Your task to perform on an android device: turn notification dots on Image 0: 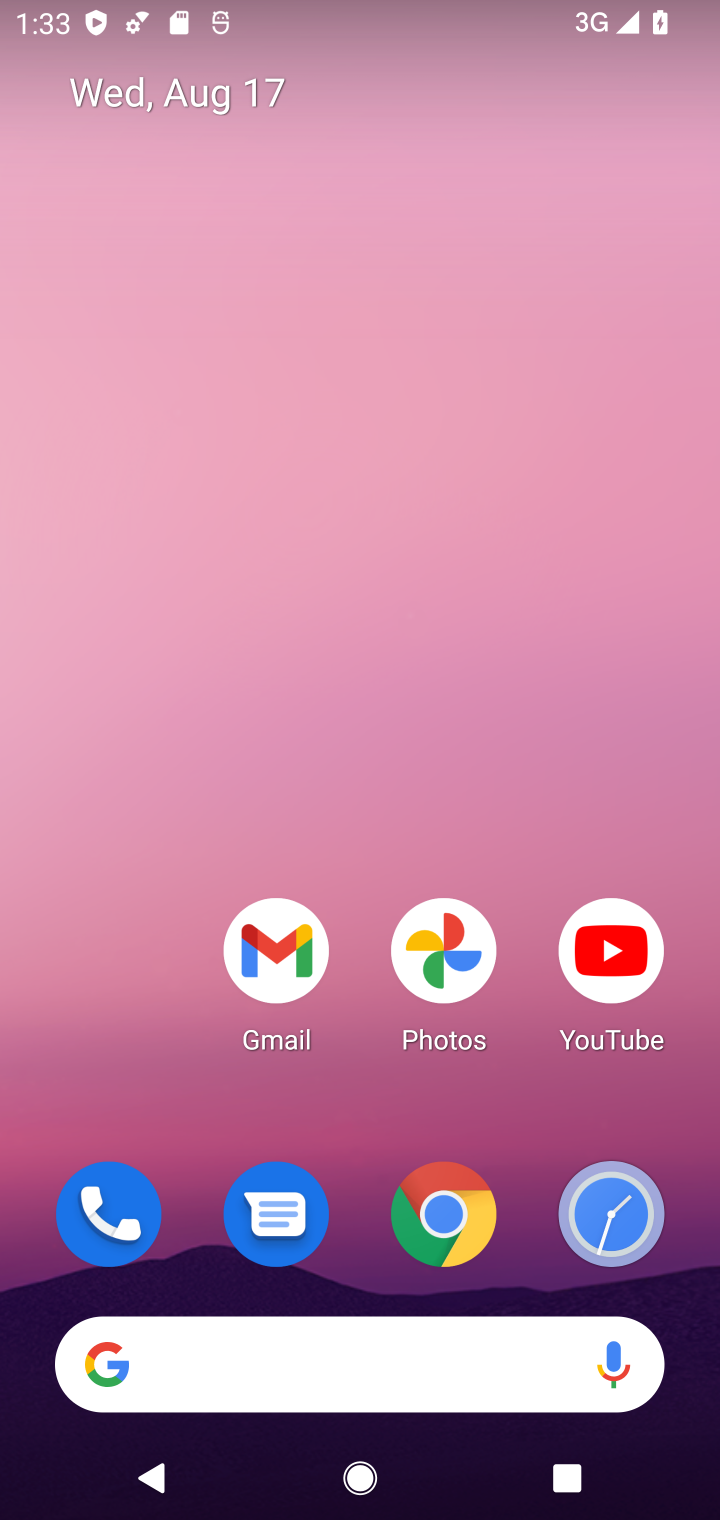
Step 0: press home button
Your task to perform on an android device: turn notification dots on Image 1: 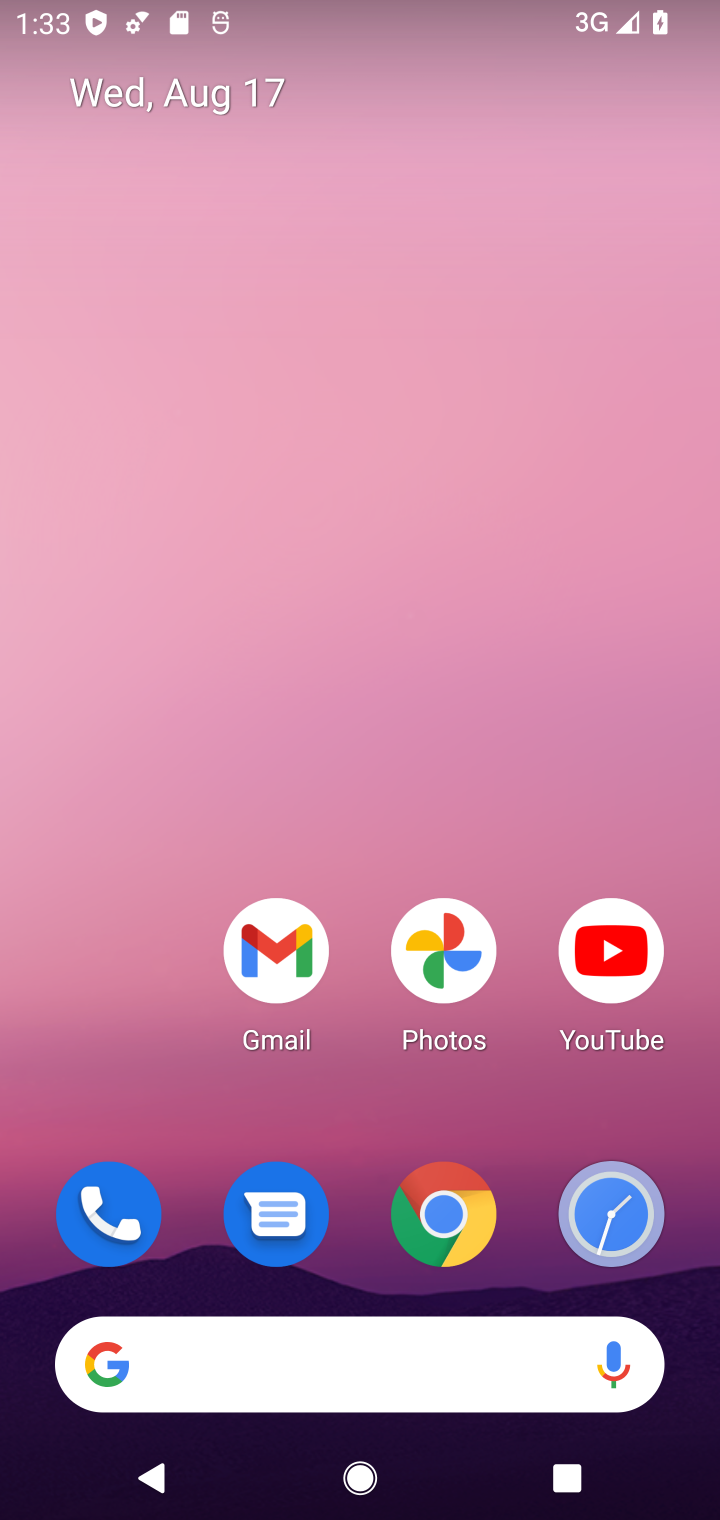
Step 1: drag from (364, 1266) to (432, 29)
Your task to perform on an android device: turn notification dots on Image 2: 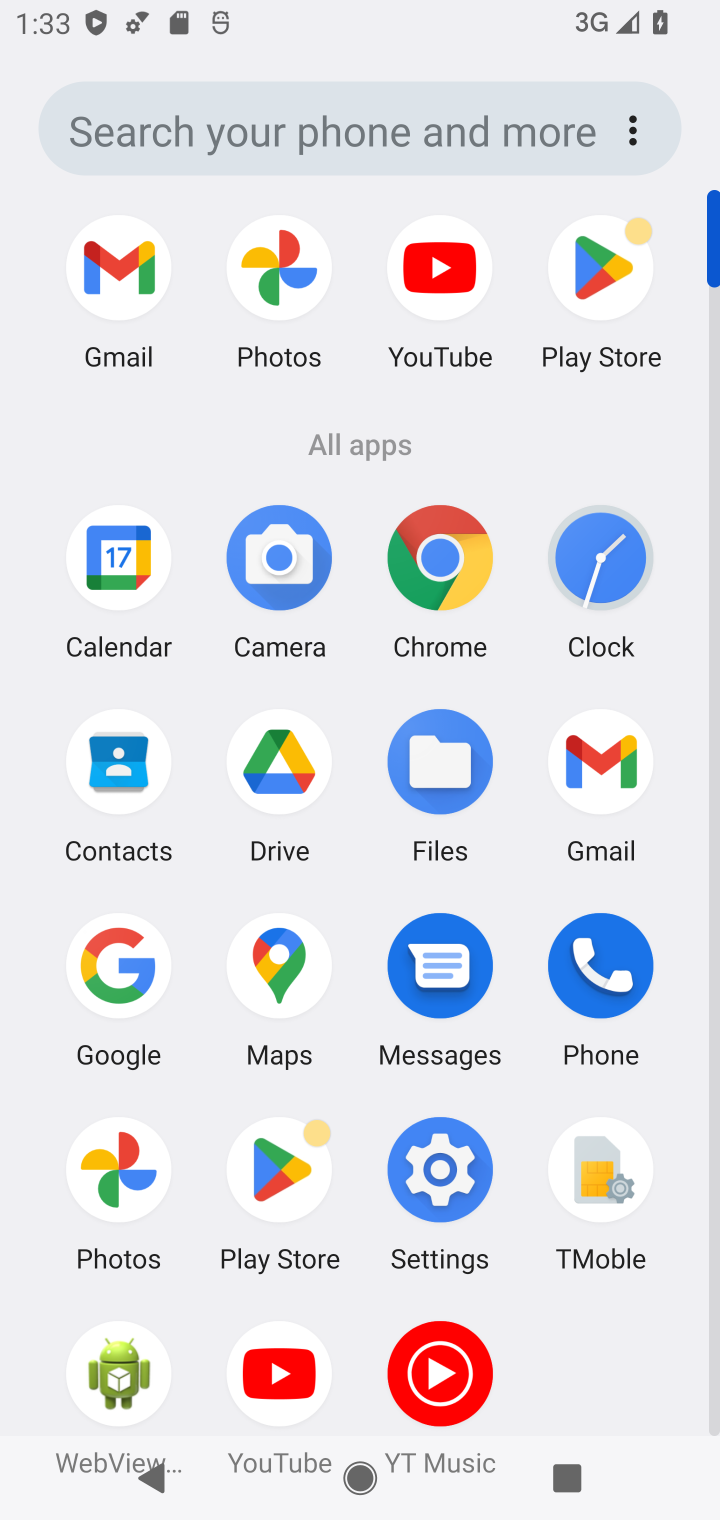
Step 2: click (449, 1174)
Your task to perform on an android device: turn notification dots on Image 3: 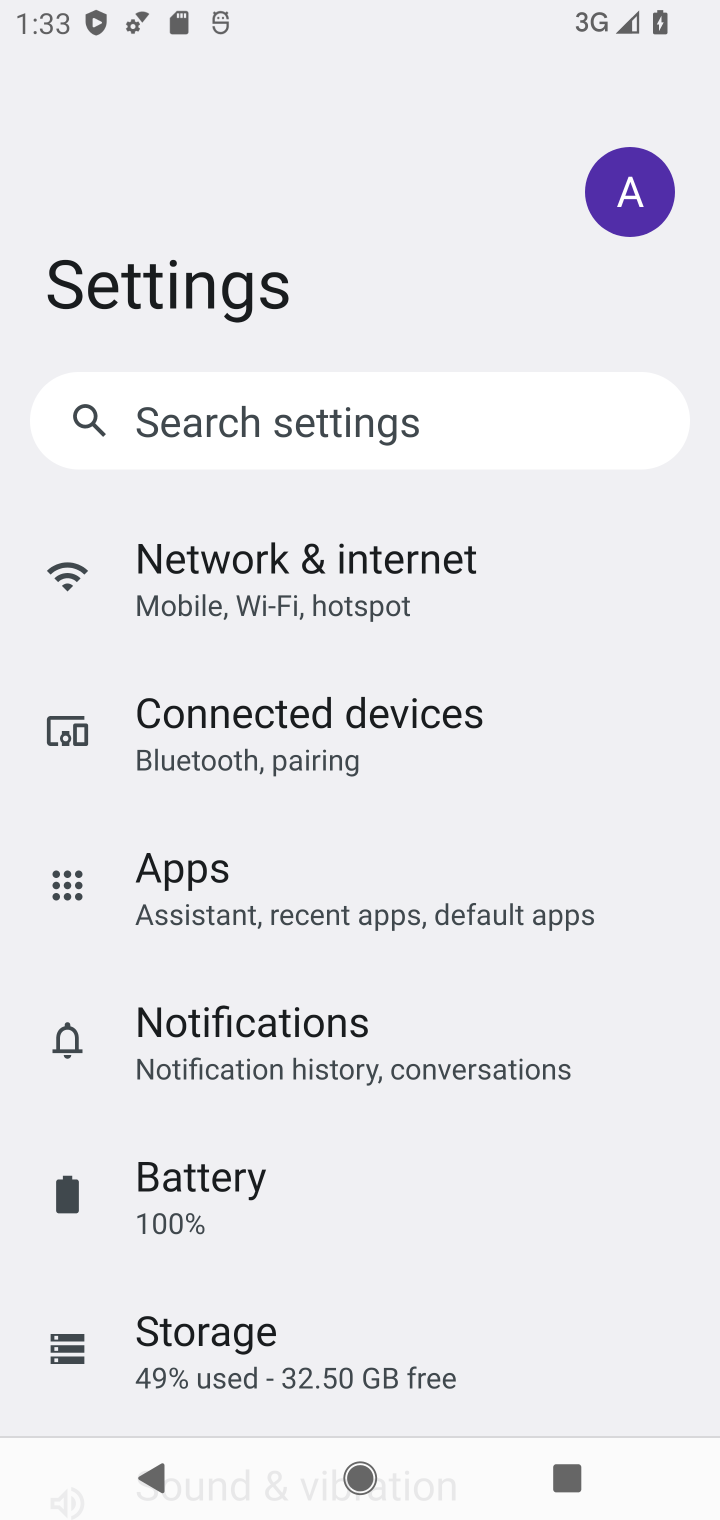
Step 3: click (282, 1016)
Your task to perform on an android device: turn notification dots on Image 4: 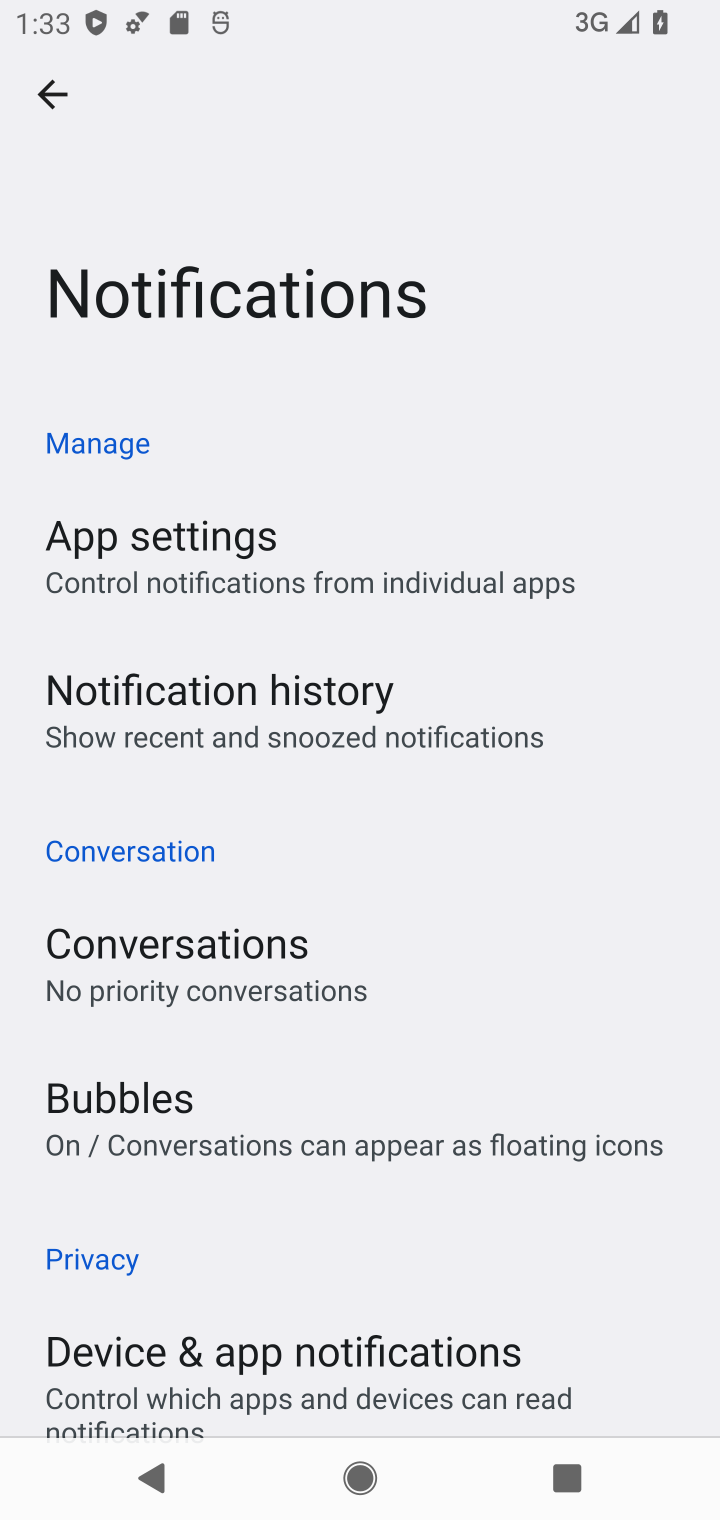
Step 4: task complete